Your task to perform on an android device: Search for apple airpods pro on amazon, select the first entry, and add it to the cart. Image 0: 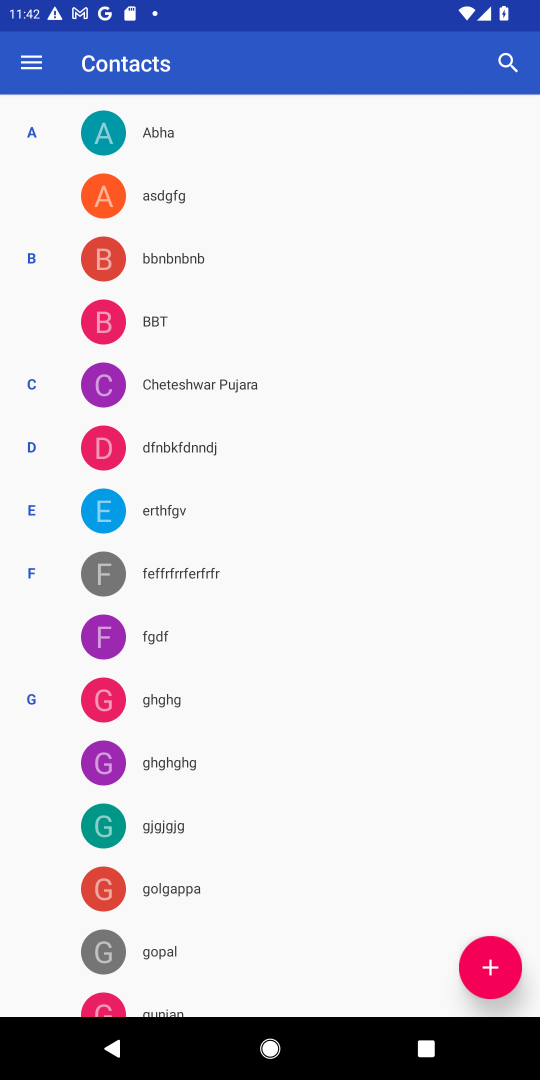
Step 0: press home button
Your task to perform on an android device: Search for apple airpods pro on amazon, select the first entry, and add it to the cart. Image 1: 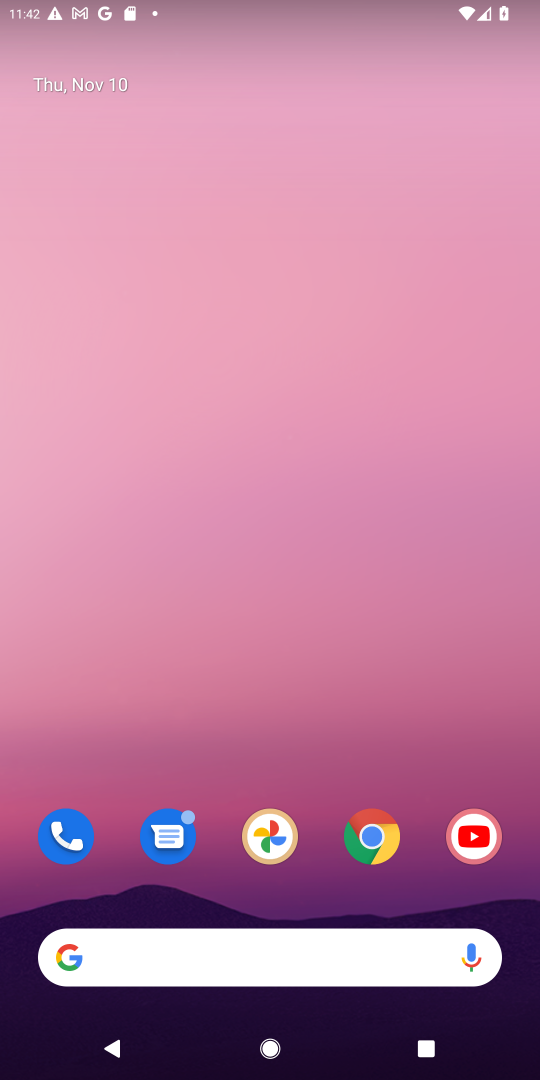
Step 1: click (232, 954)
Your task to perform on an android device: Search for apple airpods pro on amazon, select the first entry, and add it to the cart. Image 2: 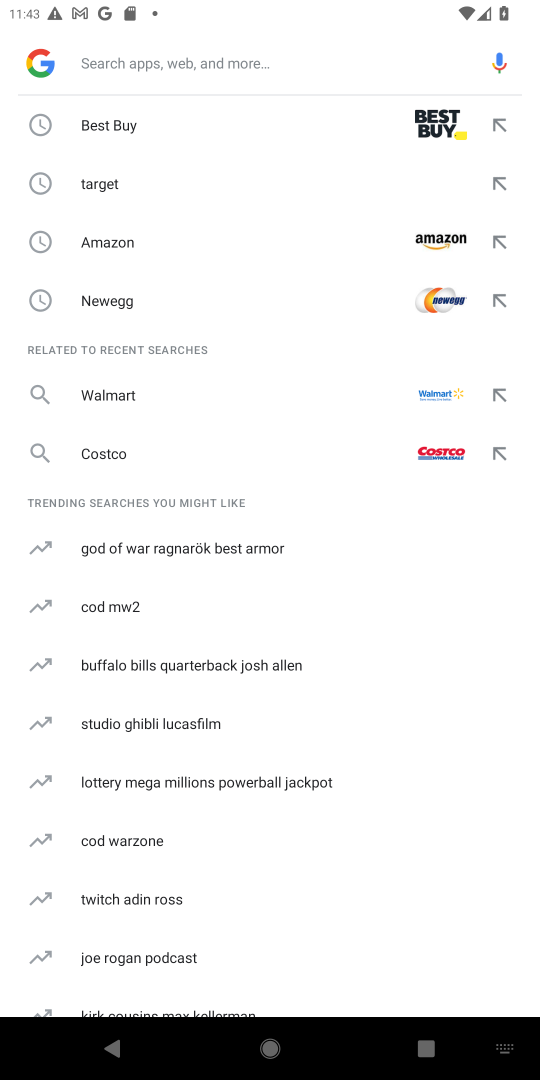
Step 2: type "amazon"
Your task to perform on an android device: Search for apple airpods pro on amazon, select the first entry, and add it to the cart. Image 3: 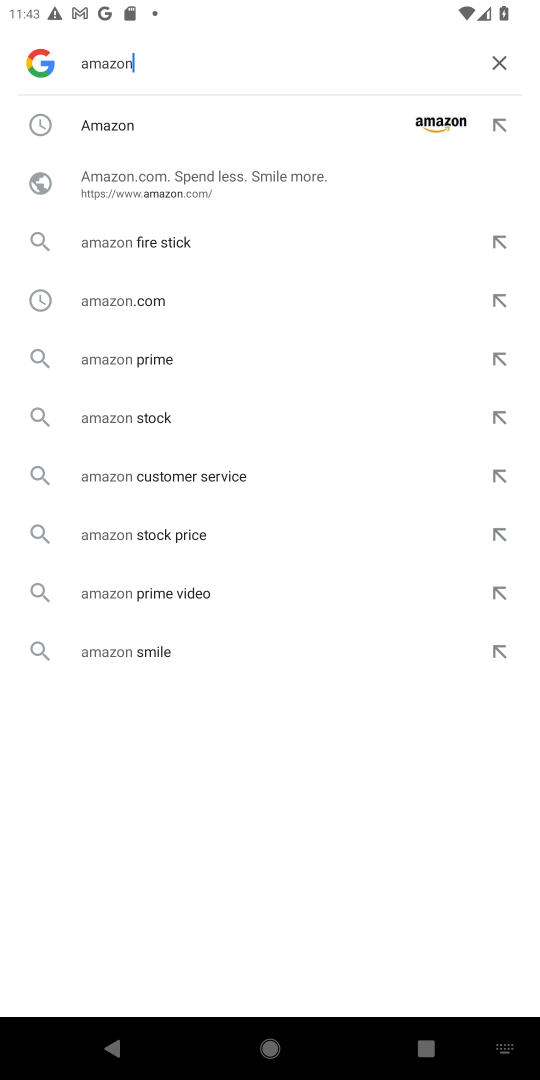
Step 3: click (107, 126)
Your task to perform on an android device: Search for apple airpods pro on amazon, select the first entry, and add it to the cart. Image 4: 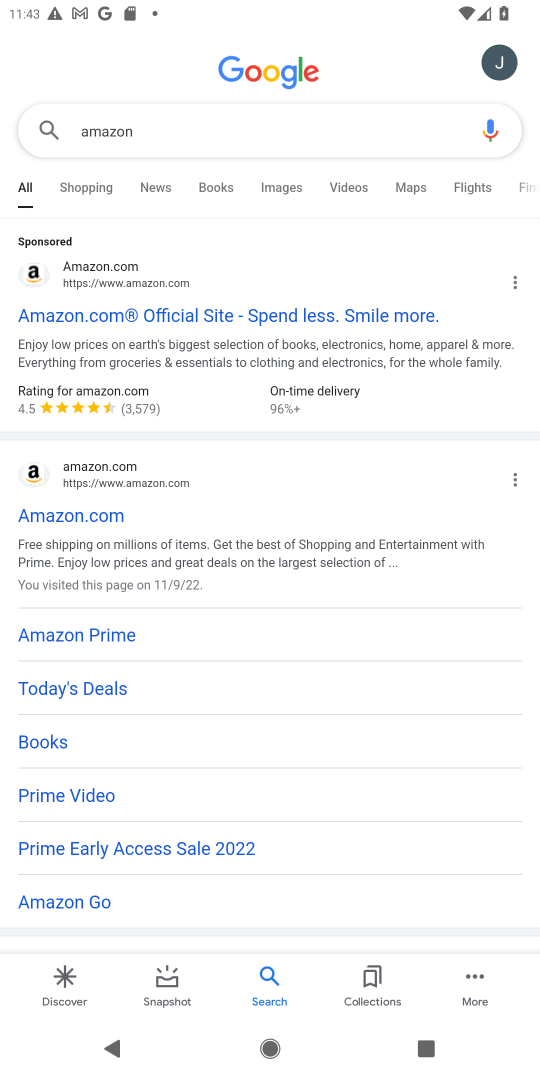
Step 4: click (84, 268)
Your task to perform on an android device: Search for apple airpods pro on amazon, select the first entry, and add it to the cart. Image 5: 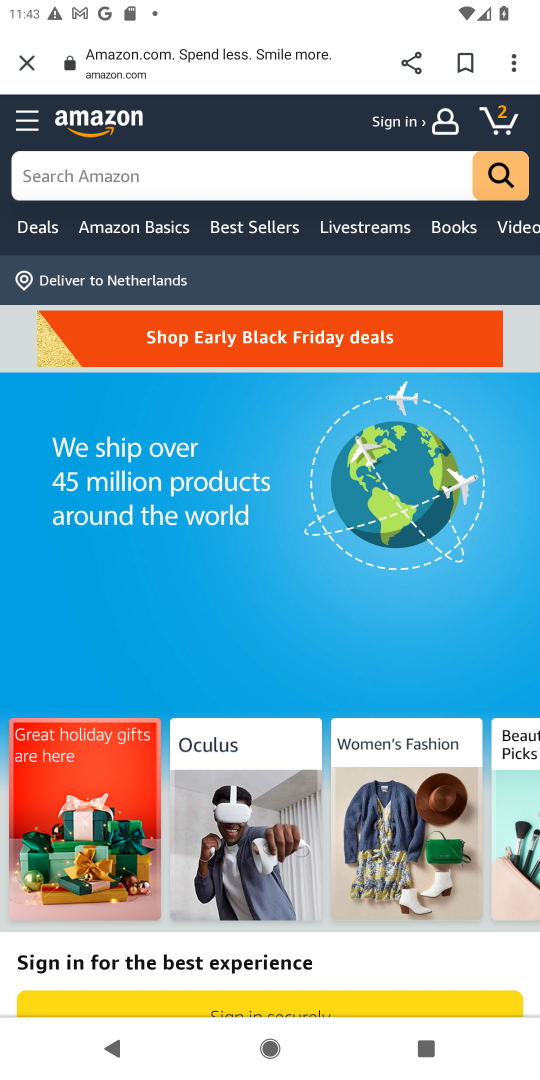
Step 5: click (146, 158)
Your task to perform on an android device: Search for apple airpods pro on amazon, select the first entry, and add it to the cart. Image 6: 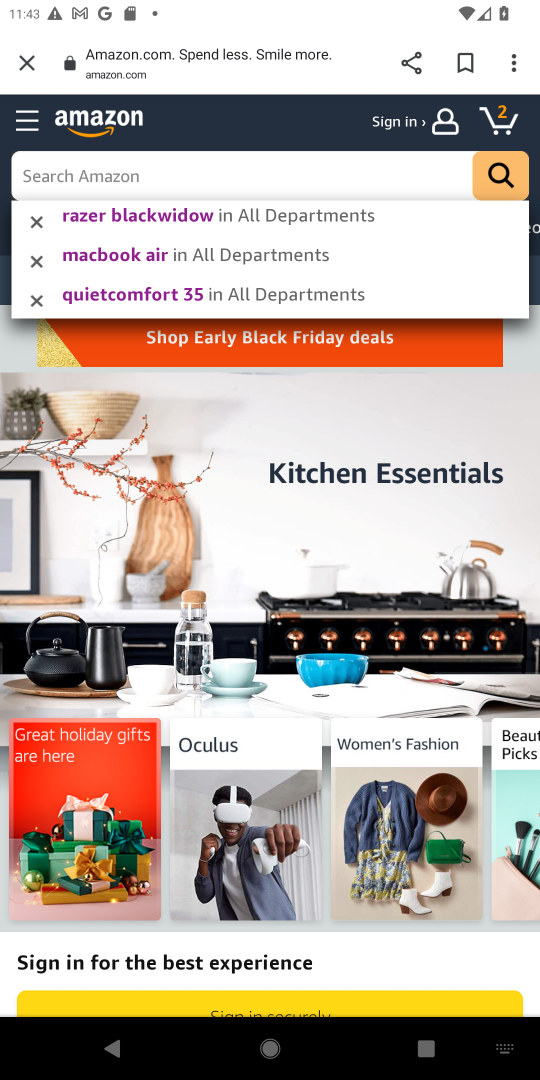
Step 6: type " apple airpods pro "
Your task to perform on an android device: Search for apple airpods pro on amazon, select the first entry, and add it to the cart. Image 7: 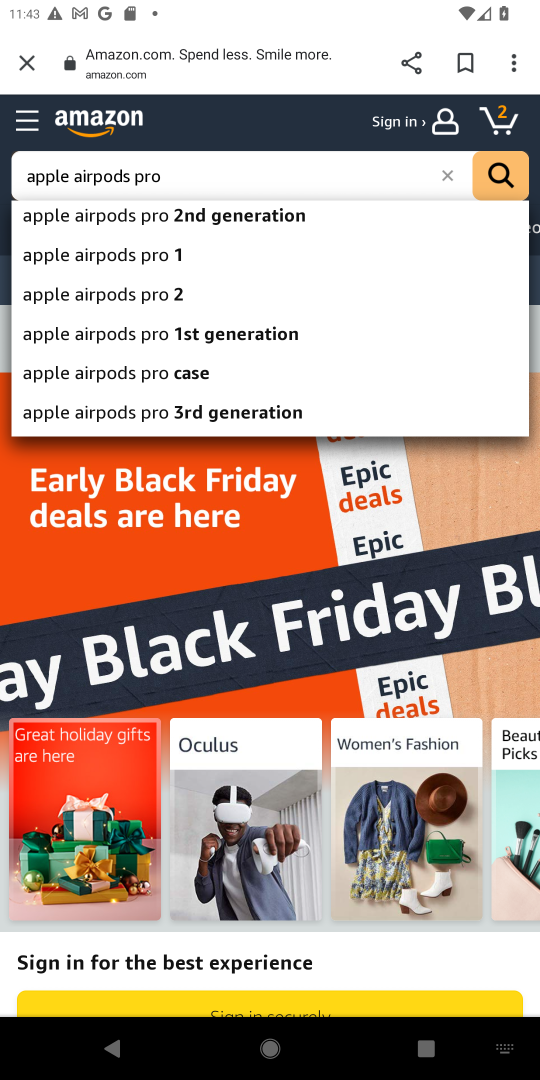
Step 7: click (179, 251)
Your task to perform on an android device: Search for apple airpods pro on amazon, select the first entry, and add it to the cart. Image 8: 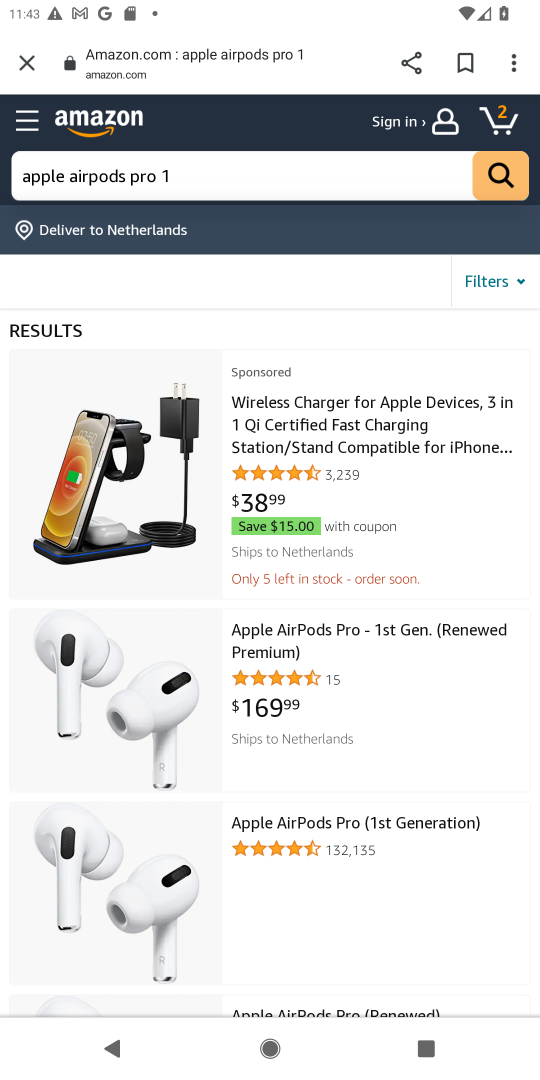
Step 8: click (272, 414)
Your task to perform on an android device: Search for apple airpods pro on amazon, select the first entry, and add it to the cart. Image 9: 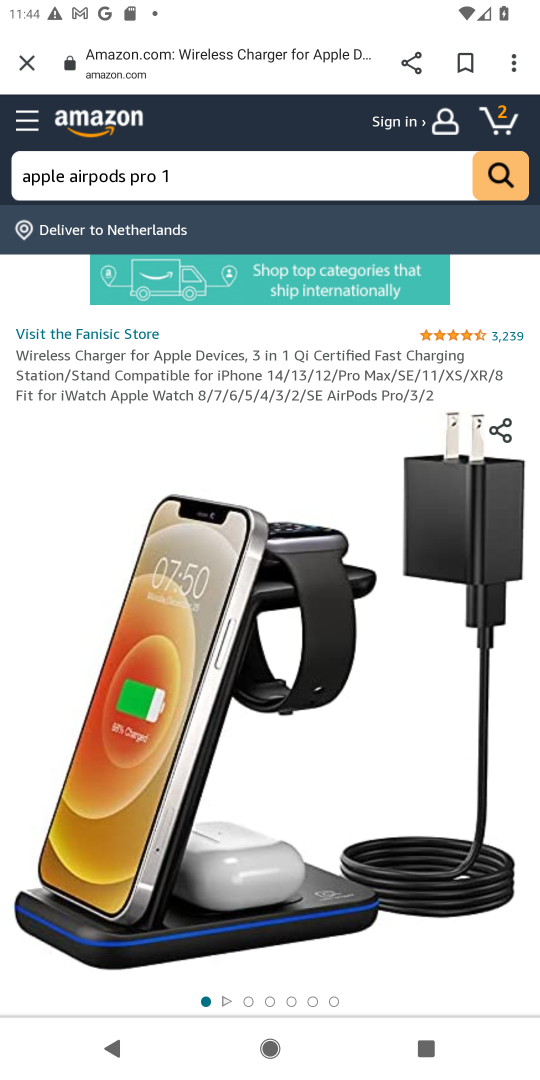
Step 9: drag from (286, 707) to (296, 564)
Your task to perform on an android device: Search for apple airpods pro on amazon, select the first entry, and add it to the cart. Image 10: 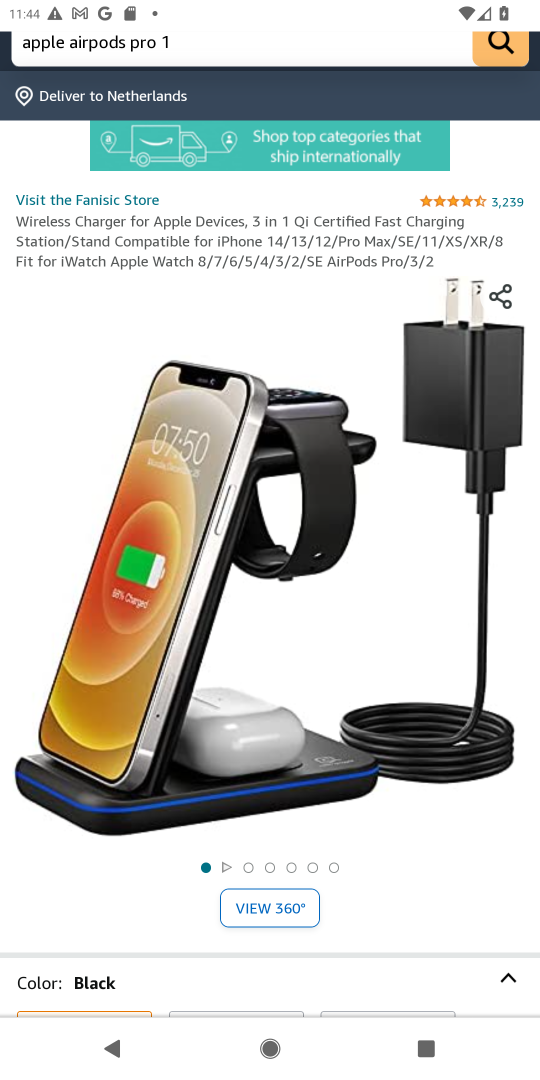
Step 10: drag from (347, 902) to (302, 619)
Your task to perform on an android device: Search for apple airpods pro on amazon, select the first entry, and add it to the cart. Image 11: 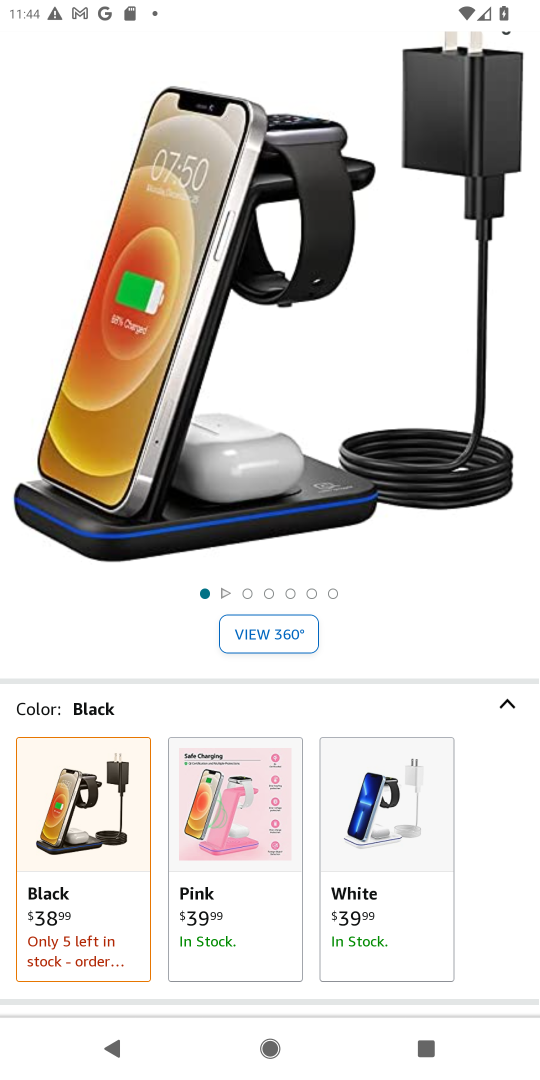
Step 11: drag from (348, 643) to (324, 346)
Your task to perform on an android device: Search for apple airpods pro on amazon, select the first entry, and add it to the cart. Image 12: 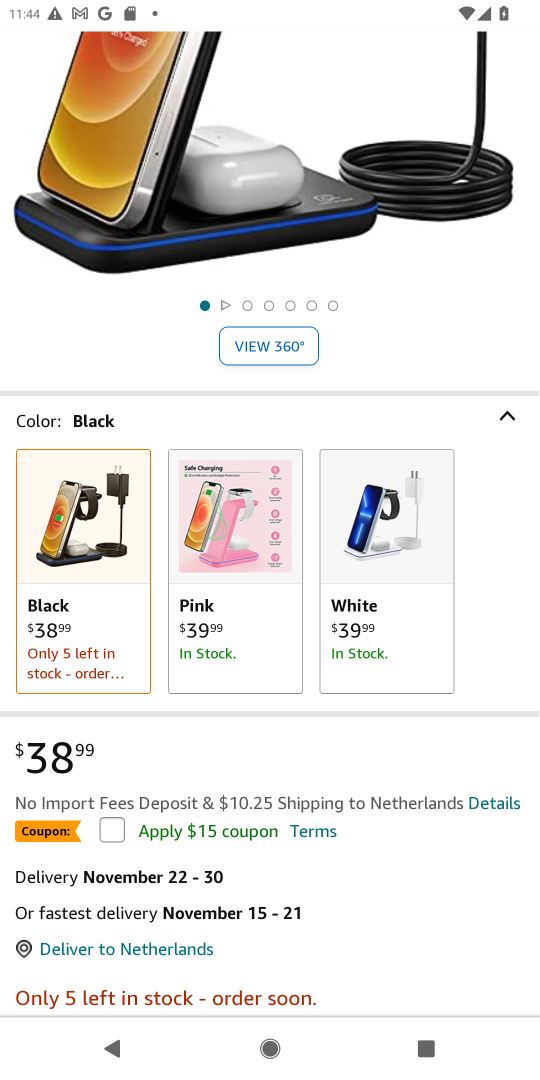
Step 12: drag from (291, 869) to (285, 385)
Your task to perform on an android device: Search for apple airpods pro on amazon, select the first entry, and add it to the cart. Image 13: 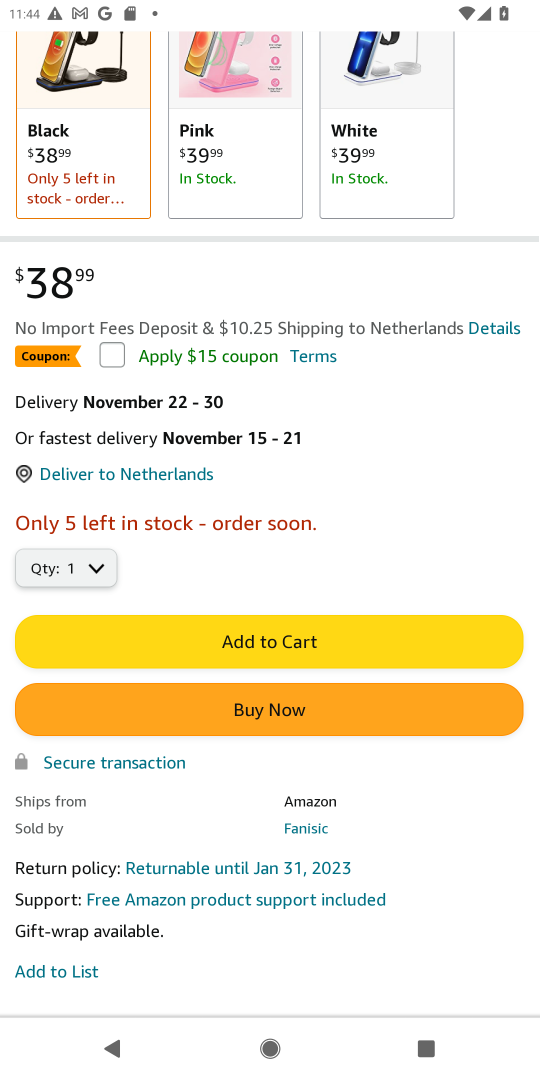
Step 13: click (261, 636)
Your task to perform on an android device: Search for apple airpods pro on amazon, select the first entry, and add it to the cart. Image 14: 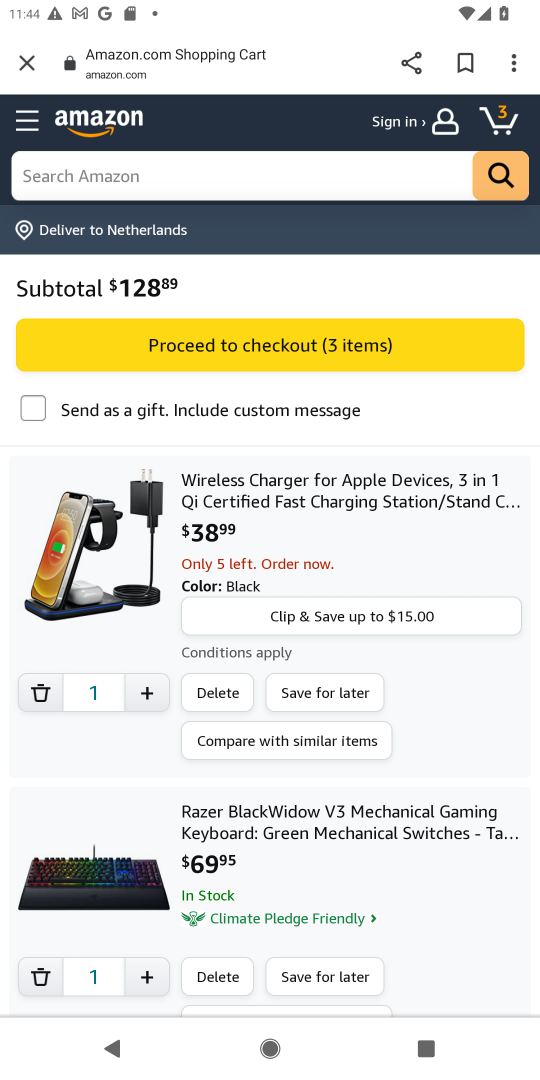
Step 14: task complete